Your task to perform on an android device: Show me productivity apps on the Play Store Image 0: 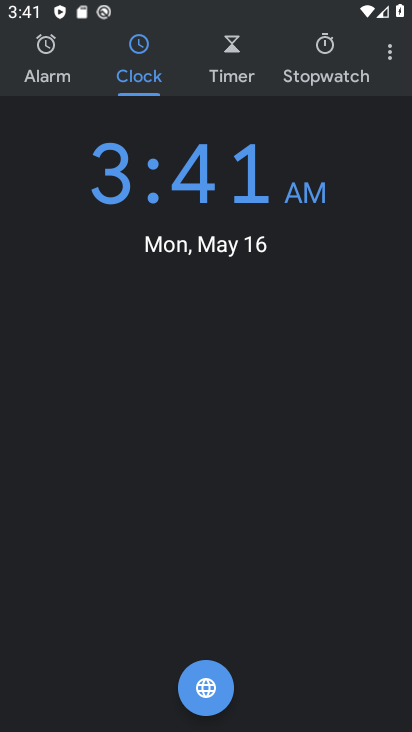
Step 0: press home button
Your task to perform on an android device: Show me productivity apps on the Play Store Image 1: 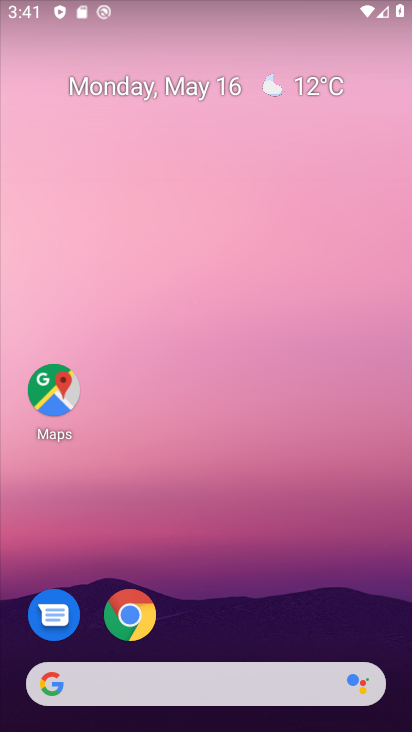
Step 1: drag from (209, 725) to (208, 206)
Your task to perform on an android device: Show me productivity apps on the Play Store Image 2: 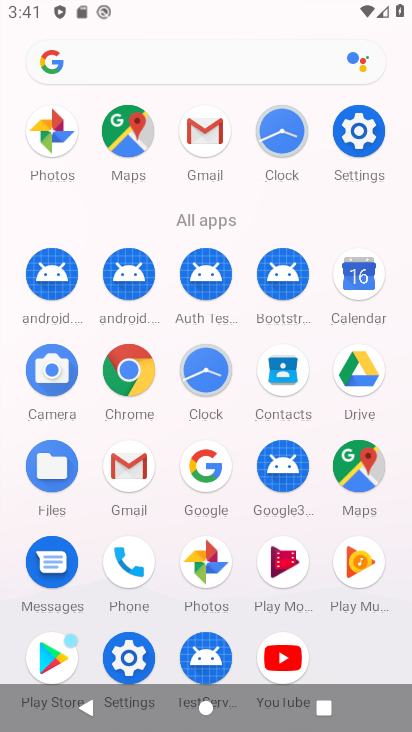
Step 2: drag from (245, 620) to (245, 235)
Your task to perform on an android device: Show me productivity apps on the Play Store Image 3: 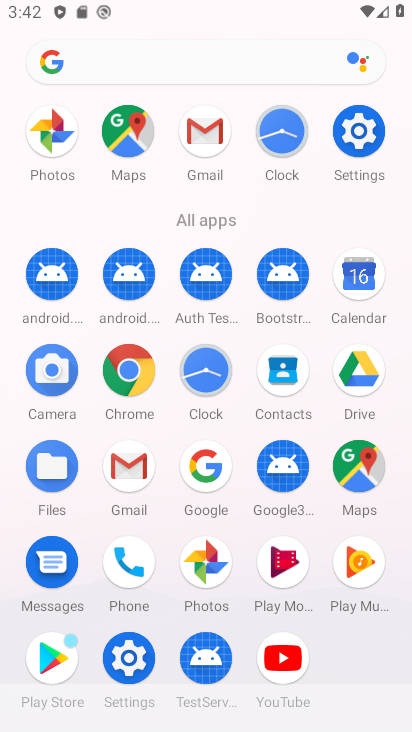
Step 3: click (47, 665)
Your task to perform on an android device: Show me productivity apps on the Play Store Image 4: 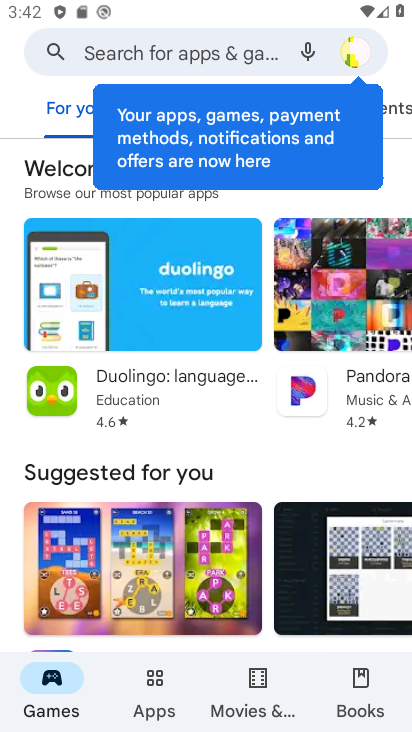
Step 4: click (153, 698)
Your task to perform on an android device: Show me productivity apps on the Play Store Image 5: 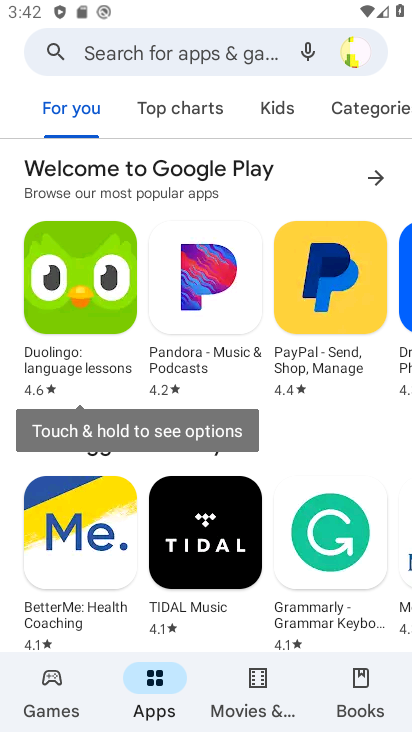
Step 5: click (343, 108)
Your task to perform on an android device: Show me productivity apps on the Play Store Image 6: 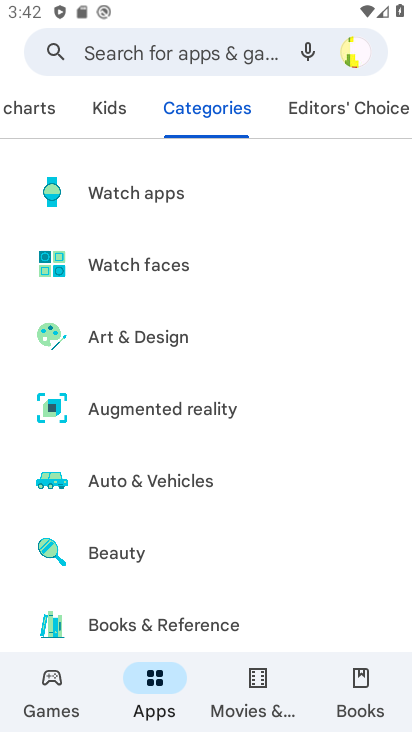
Step 6: drag from (176, 599) to (176, 256)
Your task to perform on an android device: Show me productivity apps on the Play Store Image 7: 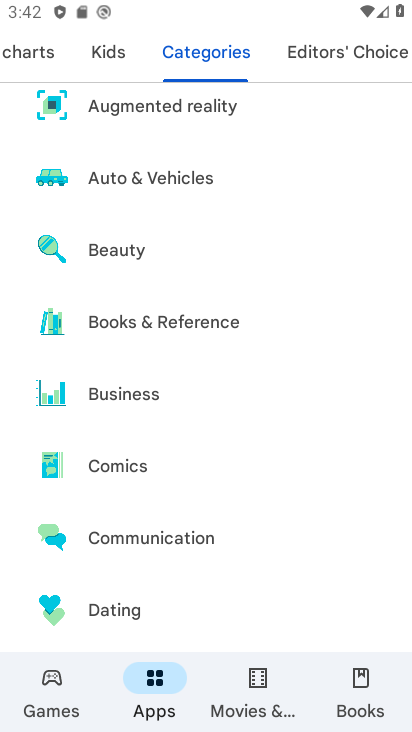
Step 7: drag from (141, 574) to (141, 265)
Your task to perform on an android device: Show me productivity apps on the Play Store Image 8: 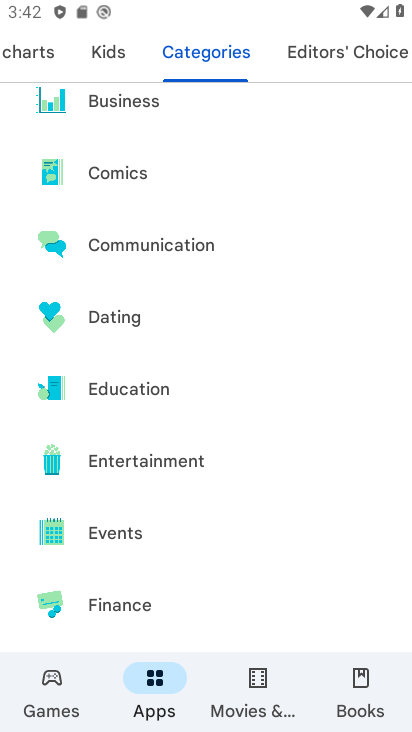
Step 8: drag from (141, 592) to (140, 265)
Your task to perform on an android device: Show me productivity apps on the Play Store Image 9: 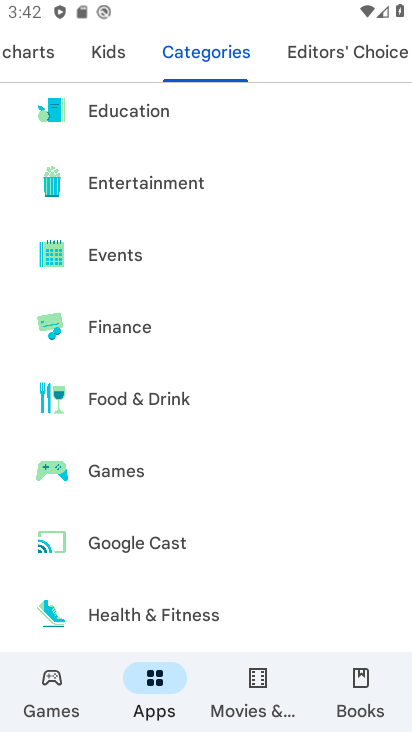
Step 9: drag from (124, 597) to (123, 217)
Your task to perform on an android device: Show me productivity apps on the Play Store Image 10: 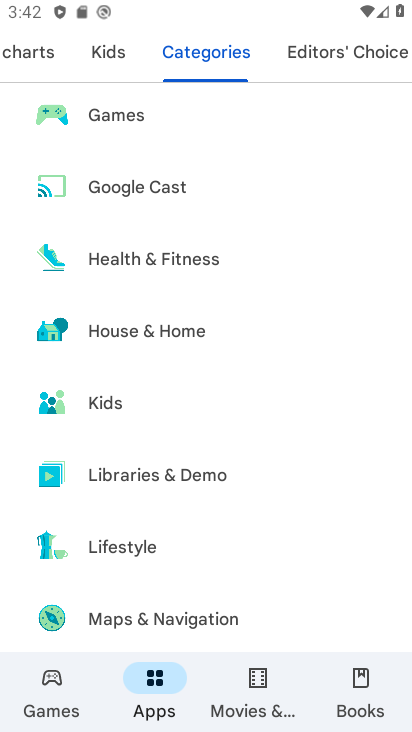
Step 10: drag from (119, 586) to (126, 219)
Your task to perform on an android device: Show me productivity apps on the Play Store Image 11: 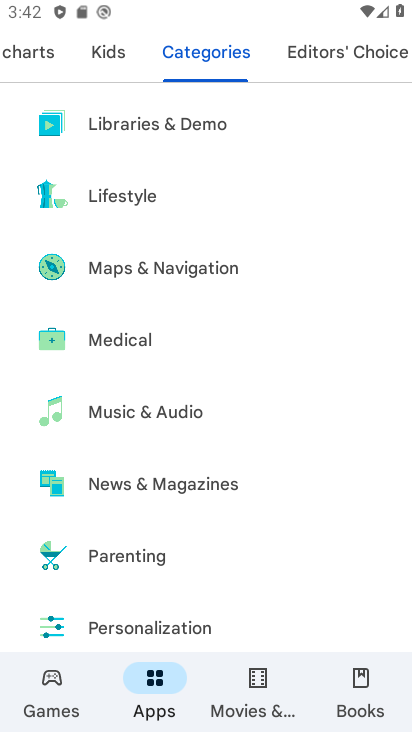
Step 11: drag from (129, 468) to (129, 157)
Your task to perform on an android device: Show me productivity apps on the Play Store Image 12: 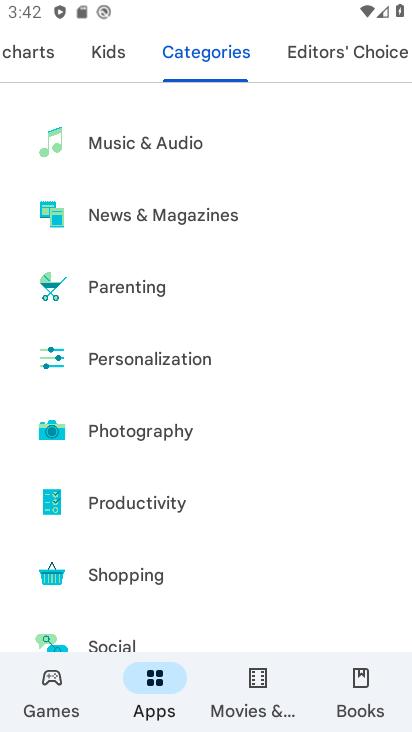
Step 12: click (127, 503)
Your task to perform on an android device: Show me productivity apps on the Play Store Image 13: 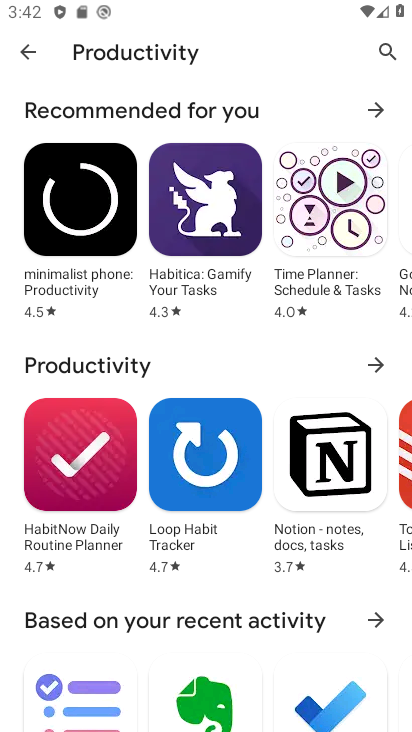
Step 13: task complete